Your task to perform on an android device: turn notification dots on Image 0: 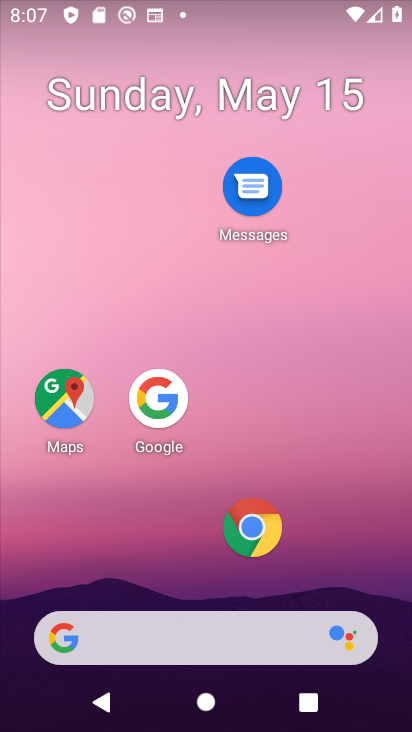
Step 0: click (350, 130)
Your task to perform on an android device: turn notification dots on Image 1: 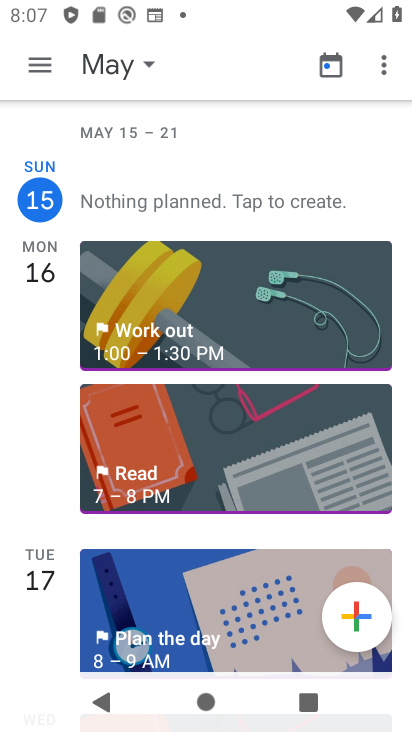
Step 1: press home button
Your task to perform on an android device: turn notification dots on Image 2: 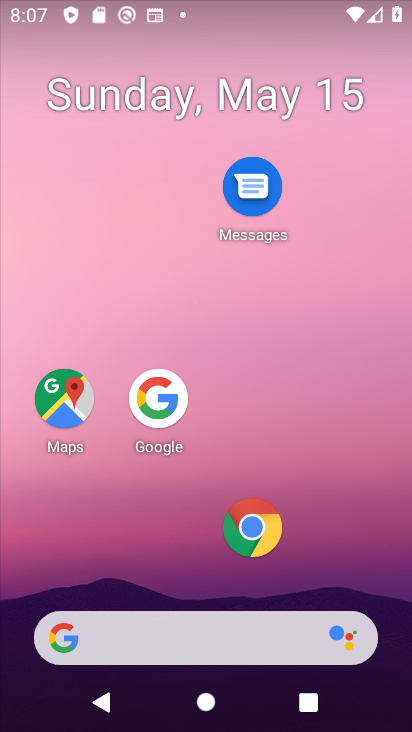
Step 2: drag from (149, 630) to (303, 127)
Your task to perform on an android device: turn notification dots on Image 3: 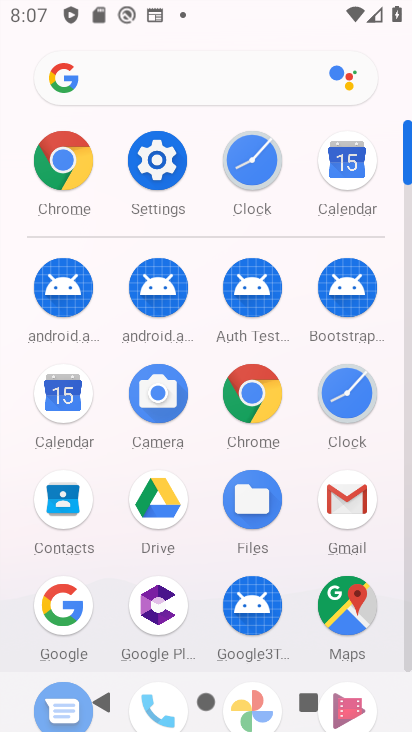
Step 3: click (161, 172)
Your task to perform on an android device: turn notification dots on Image 4: 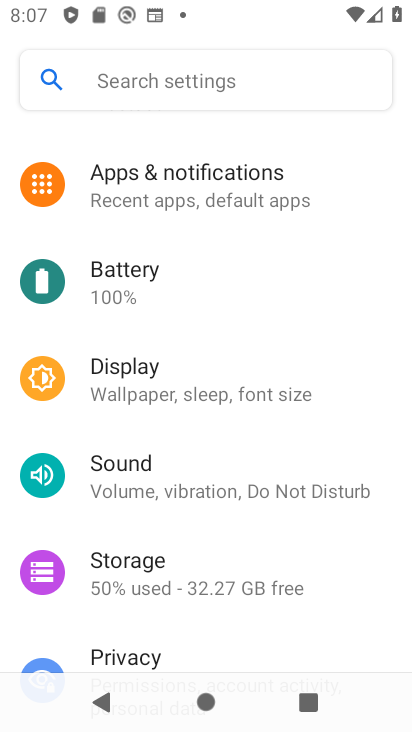
Step 4: click (161, 172)
Your task to perform on an android device: turn notification dots on Image 5: 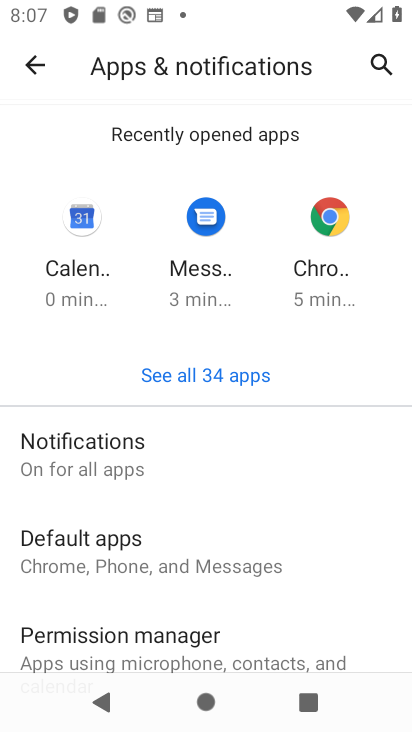
Step 5: click (101, 456)
Your task to perform on an android device: turn notification dots on Image 6: 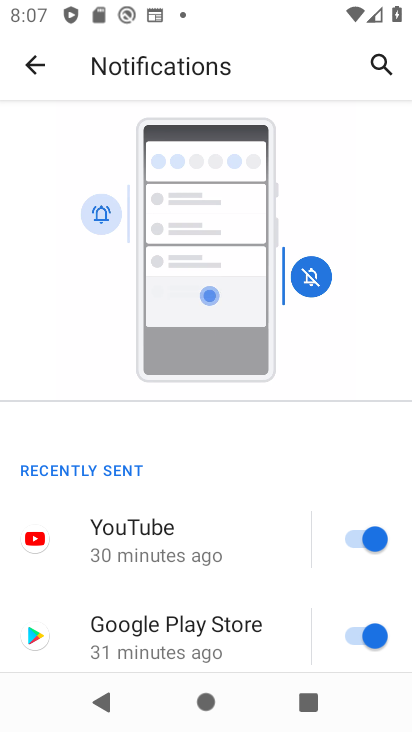
Step 6: drag from (123, 631) to (319, 105)
Your task to perform on an android device: turn notification dots on Image 7: 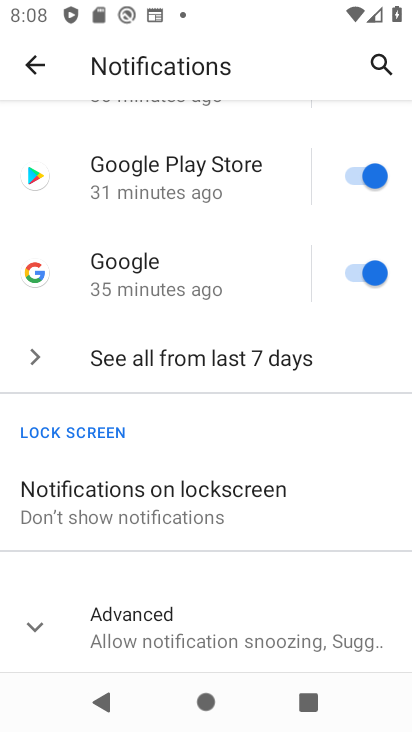
Step 7: drag from (167, 584) to (310, 262)
Your task to perform on an android device: turn notification dots on Image 8: 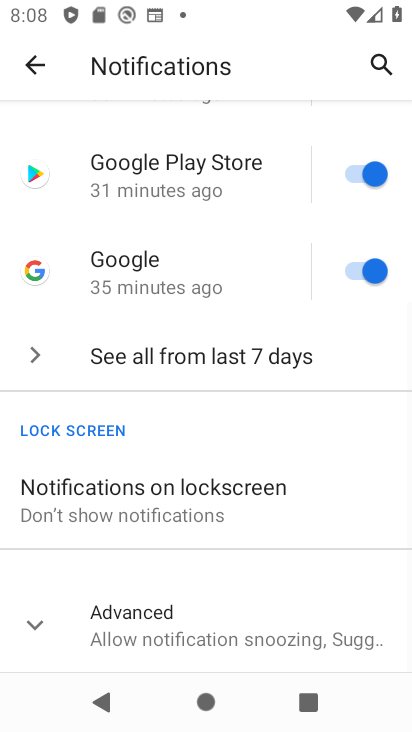
Step 8: click (152, 629)
Your task to perform on an android device: turn notification dots on Image 9: 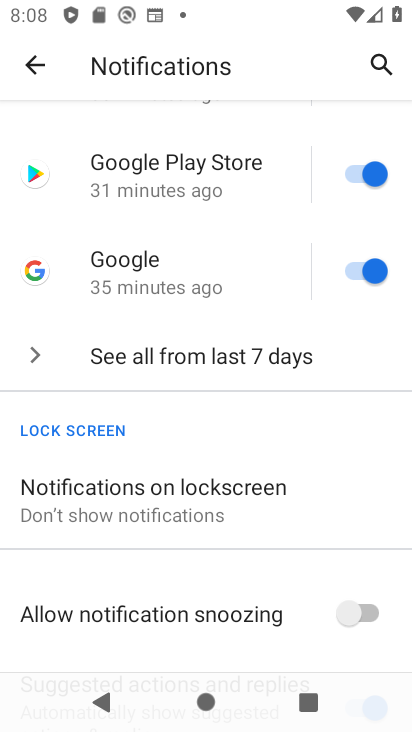
Step 9: task complete